Your task to perform on an android device: remove spam from my inbox in the gmail app Image 0: 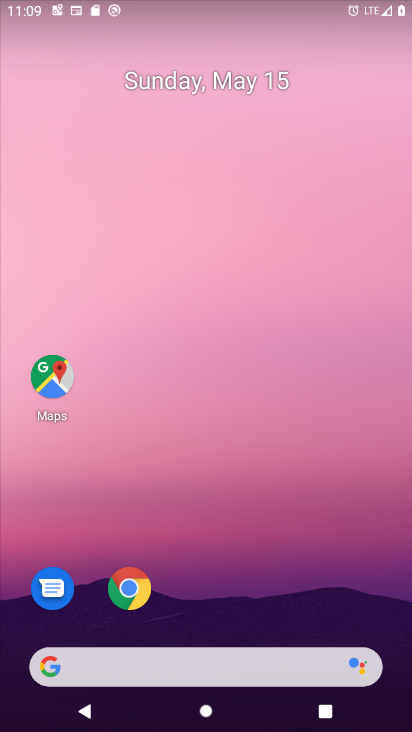
Step 0: drag from (237, 606) to (218, 158)
Your task to perform on an android device: remove spam from my inbox in the gmail app Image 1: 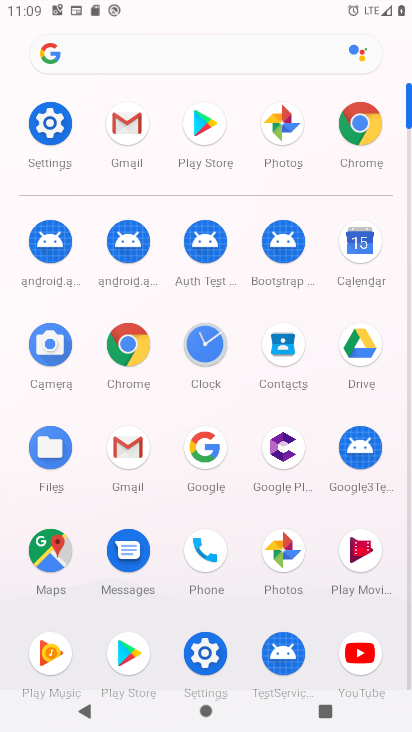
Step 1: click (118, 131)
Your task to perform on an android device: remove spam from my inbox in the gmail app Image 2: 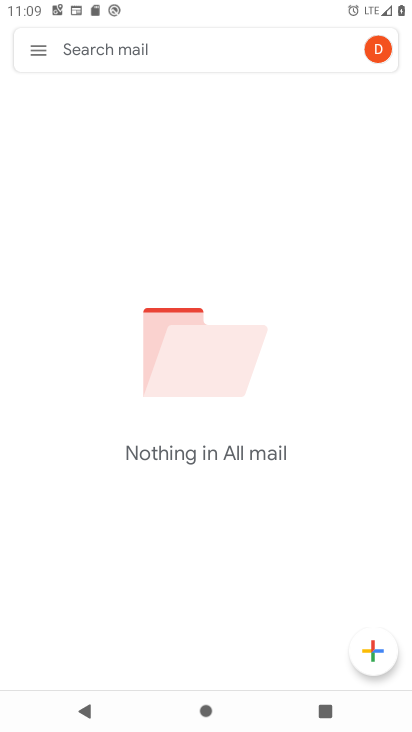
Step 2: click (38, 53)
Your task to perform on an android device: remove spam from my inbox in the gmail app Image 3: 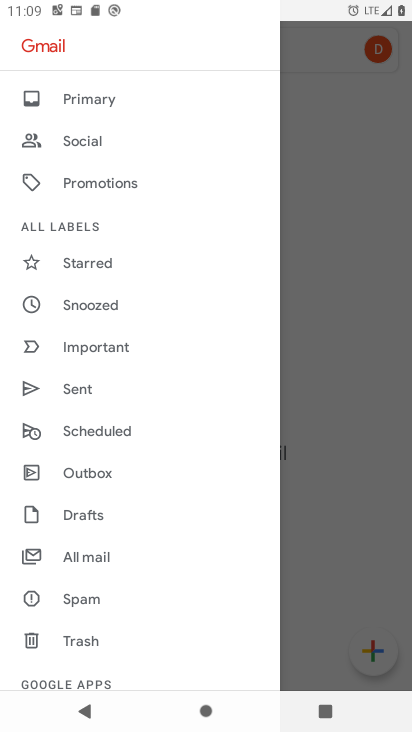
Step 3: click (95, 605)
Your task to perform on an android device: remove spam from my inbox in the gmail app Image 4: 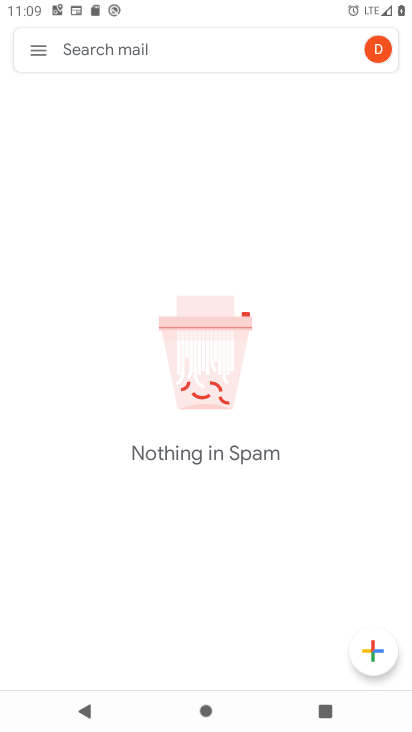
Step 4: task complete